Your task to perform on an android device: Go to accessibility settings Image 0: 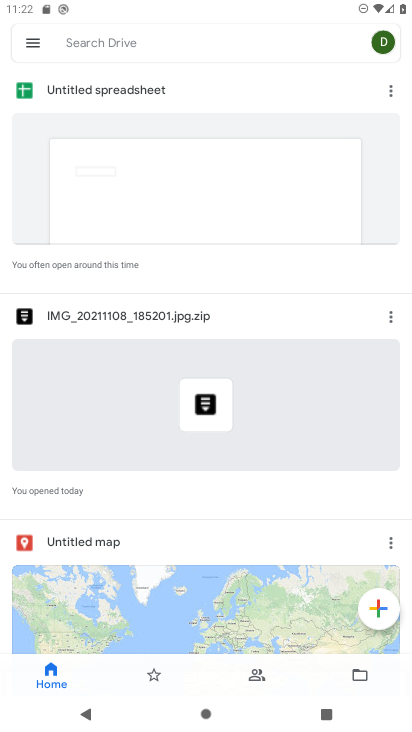
Step 0: press home button
Your task to perform on an android device: Go to accessibility settings Image 1: 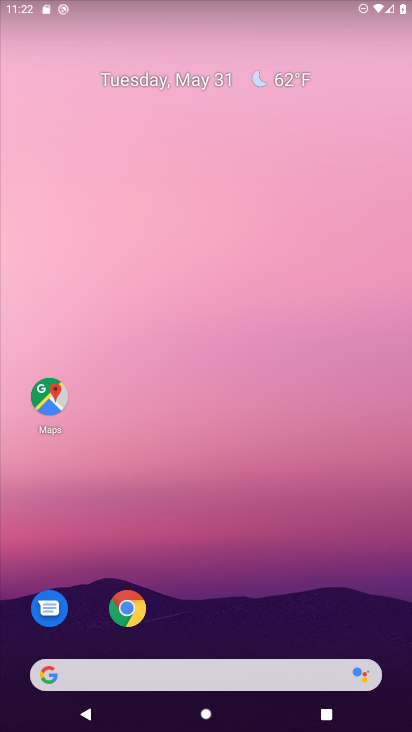
Step 1: drag from (333, 574) to (332, 136)
Your task to perform on an android device: Go to accessibility settings Image 2: 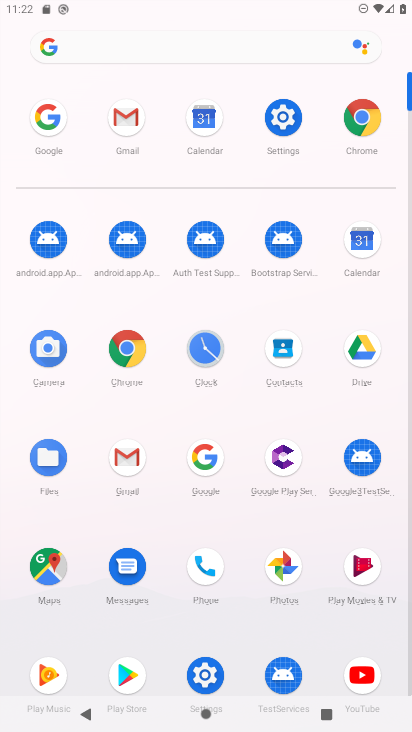
Step 2: click (210, 683)
Your task to perform on an android device: Go to accessibility settings Image 3: 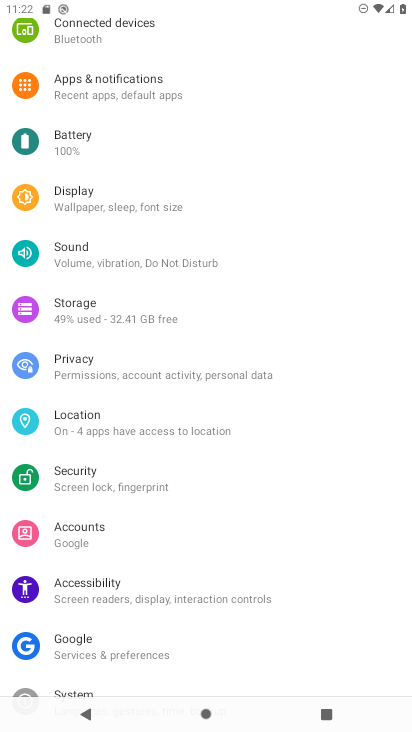
Step 3: click (192, 600)
Your task to perform on an android device: Go to accessibility settings Image 4: 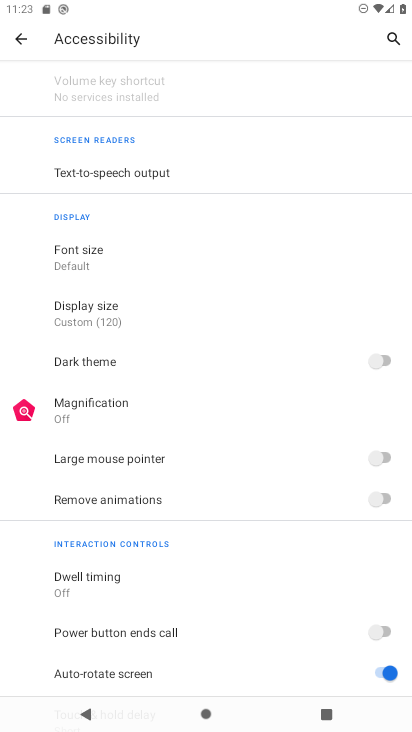
Step 4: task complete